Your task to perform on an android device: toggle airplane mode Image 0: 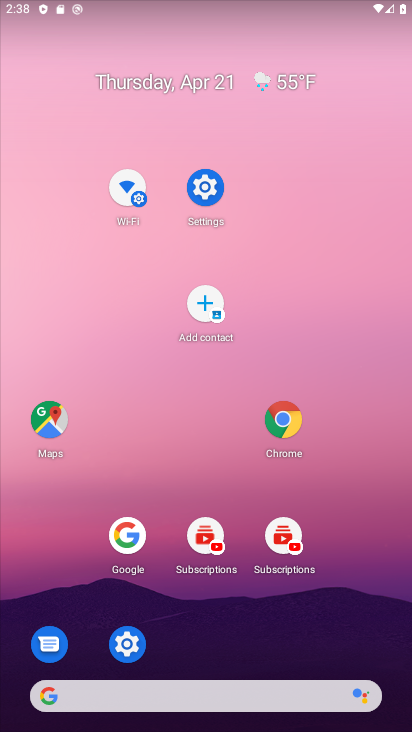
Step 0: drag from (249, 583) to (175, 142)
Your task to perform on an android device: toggle airplane mode Image 1: 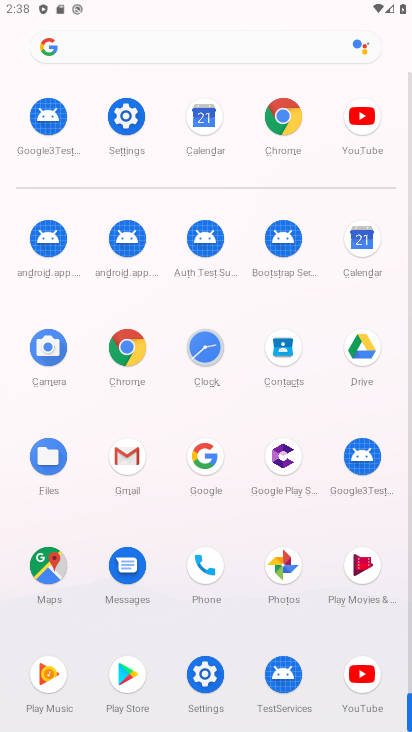
Step 1: click (204, 346)
Your task to perform on an android device: toggle airplane mode Image 2: 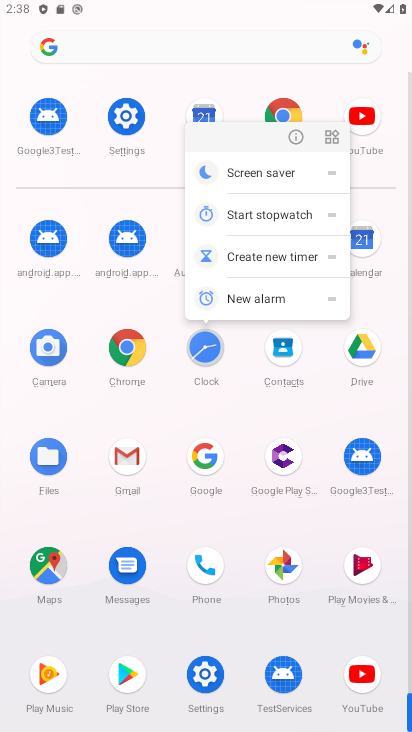
Step 2: click (120, 118)
Your task to perform on an android device: toggle airplane mode Image 3: 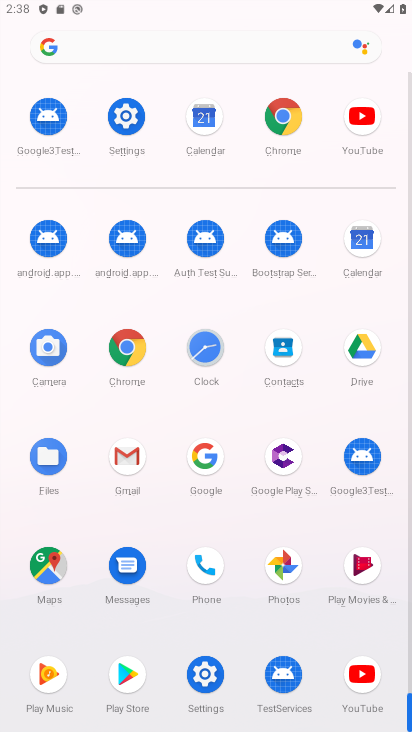
Step 3: click (131, 127)
Your task to perform on an android device: toggle airplane mode Image 4: 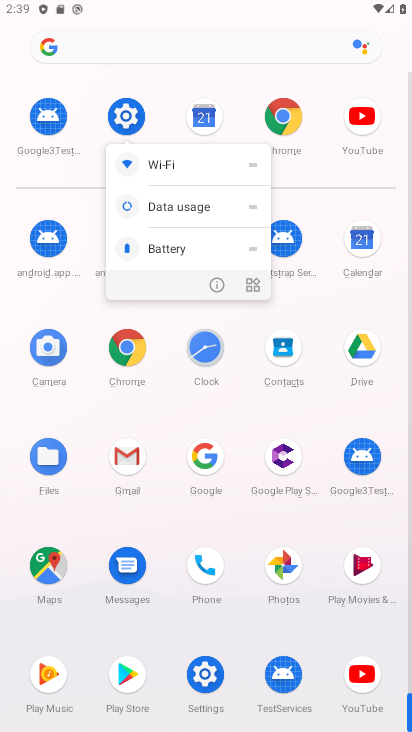
Step 4: click (119, 107)
Your task to perform on an android device: toggle airplane mode Image 5: 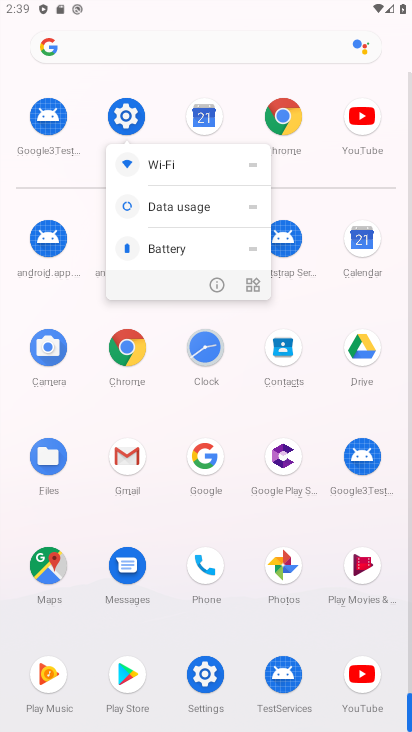
Step 5: click (126, 126)
Your task to perform on an android device: toggle airplane mode Image 6: 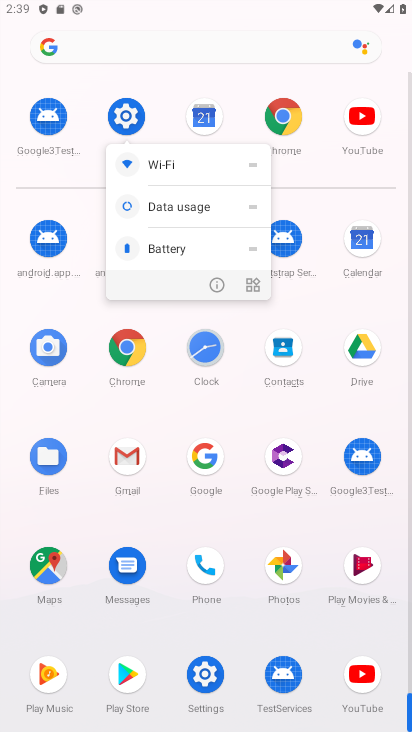
Step 6: click (145, 156)
Your task to perform on an android device: toggle airplane mode Image 7: 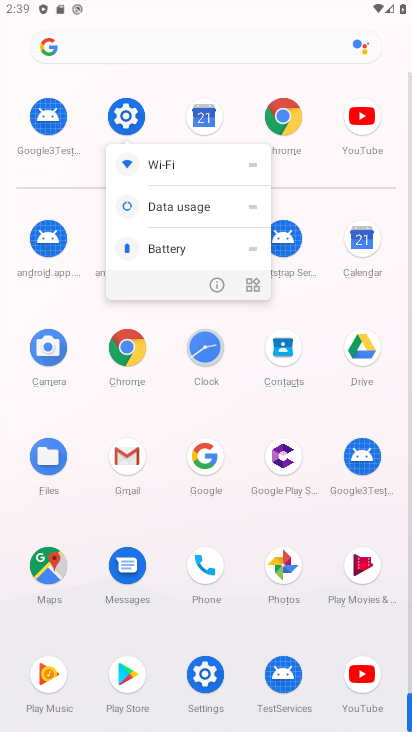
Step 7: click (159, 164)
Your task to perform on an android device: toggle airplane mode Image 8: 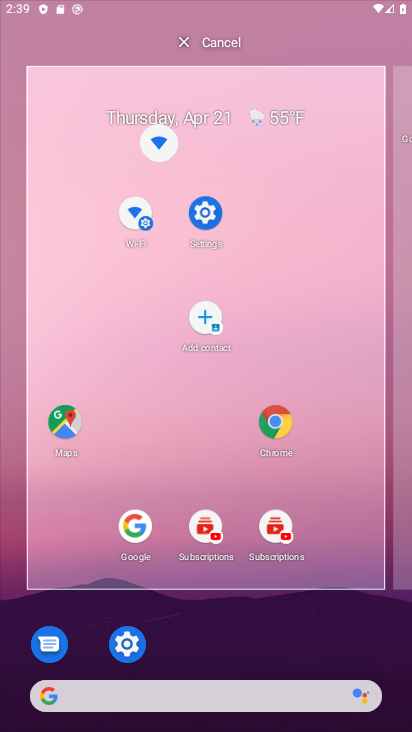
Step 8: click (158, 167)
Your task to perform on an android device: toggle airplane mode Image 9: 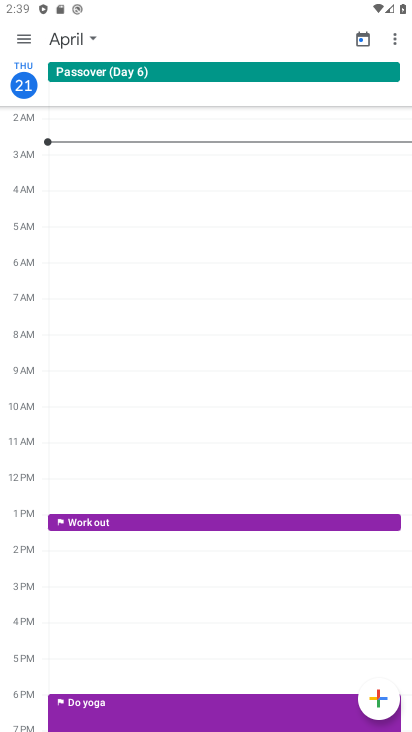
Step 9: drag from (293, 615) to (187, 252)
Your task to perform on an android device: toggle airplane mode Image 10: 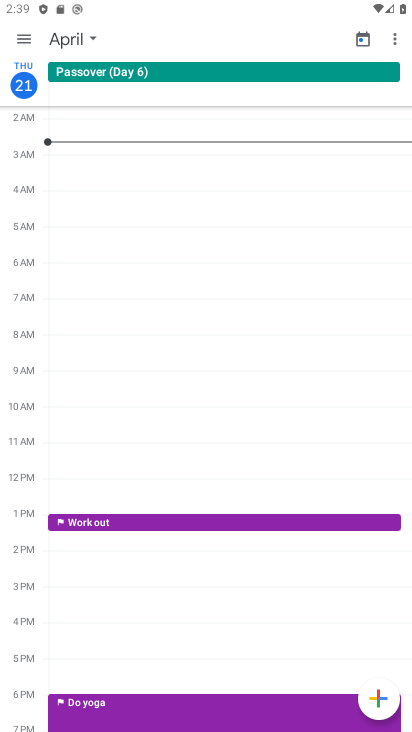
Step 10: press home button
Your task to perform on an android device: toggle airplane mode Image 11: 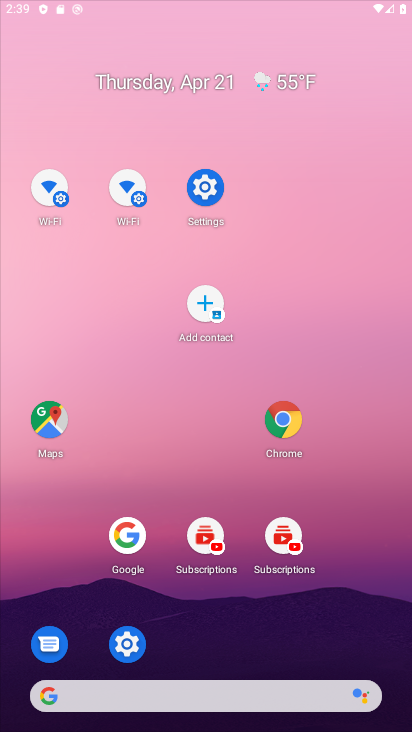
Step 11: press home button
Your task to perform on an android device: toggle airplane mode Image 12: 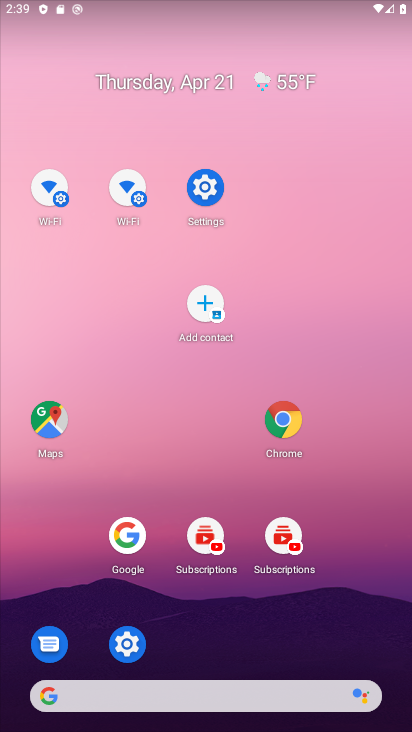
Step 12: drag from (334, 368) to (236, 29)
Your task to perform on an android device: toggle airplane mode Image 13: 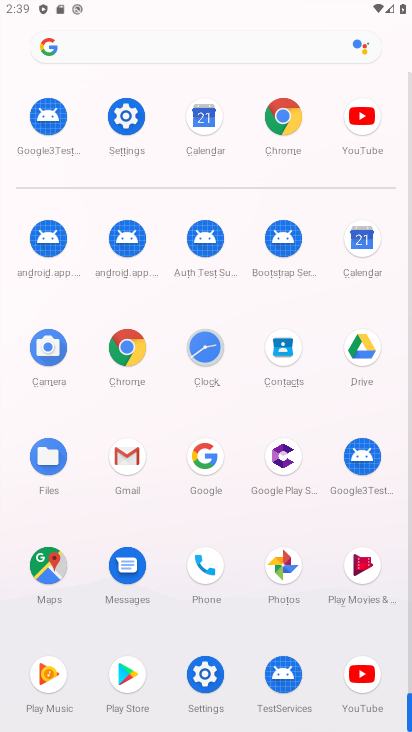
Step 13: click (131, 119)
Your task to perform on an android device: toggle airplane mode Image 14: 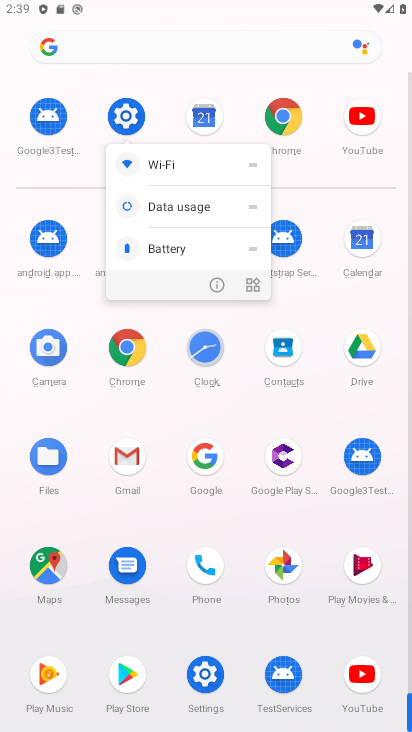
Step 14: click (130, 113)
Your task to perform on an android device: toggle airplane mode Image 15: 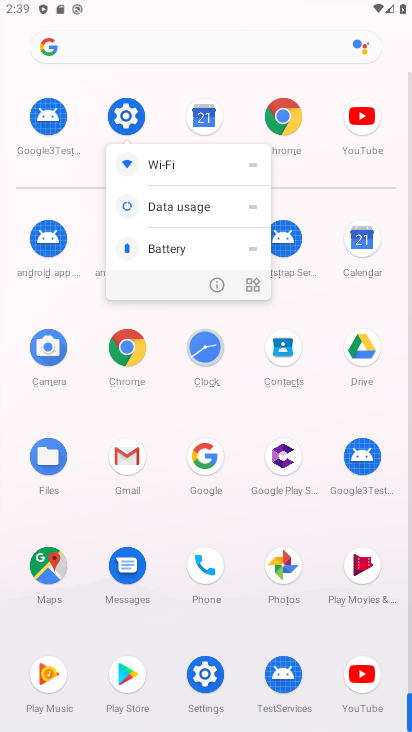
Step 15: click (131, 112)
Your task to perform on an android device: toggle airplane mode Image 16: 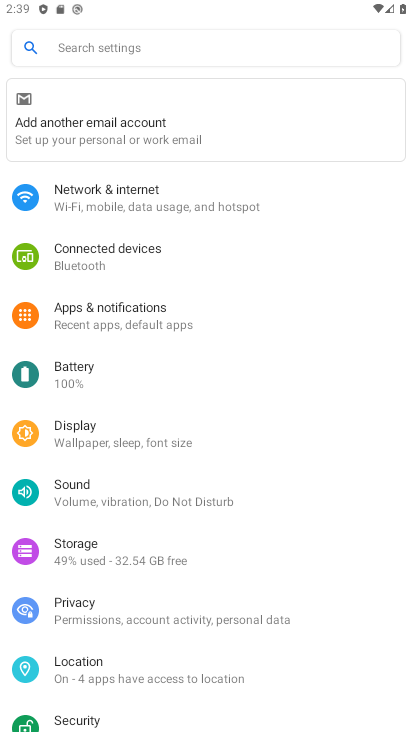
Step 16: click (124, 211)
Your task to perform on an android device: toggle airplane mode Image 17: 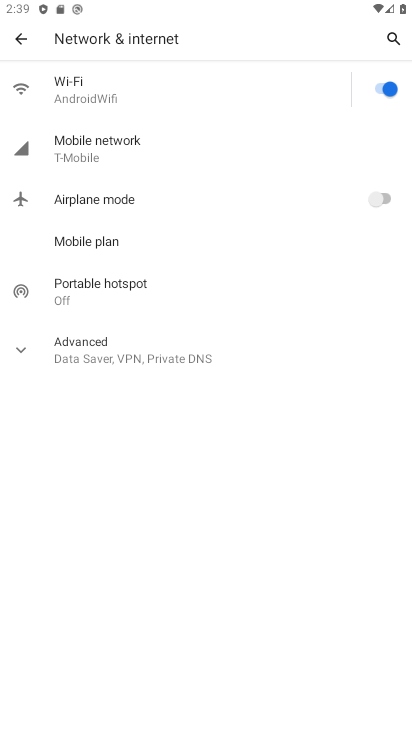
Step 17: click (384, 202)
Your task to perform on an android device: toggle airplane mode Image 18: 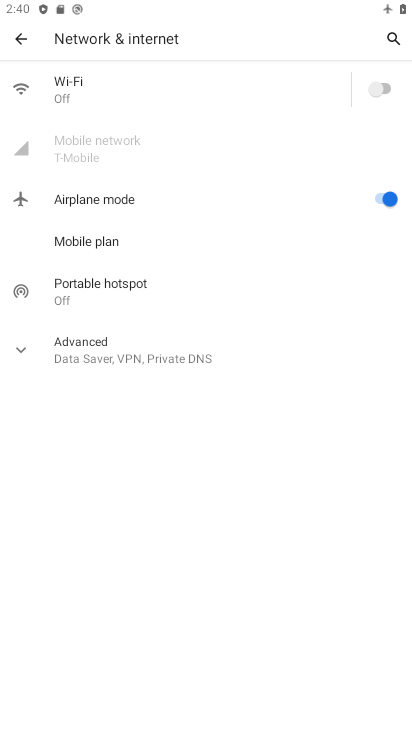
Step 18: task complete